Your task to perform on an android device: open a new tab in the chrome app Image 0: 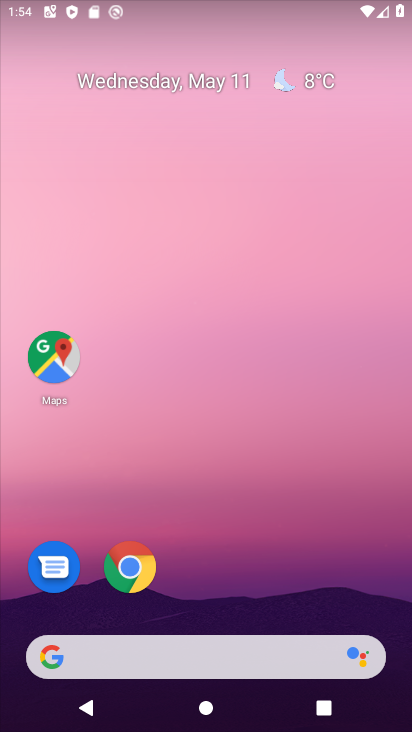
Step 0: click (143, 574)
Your task to perform on an android device: open a new tab in the chrome app Image 1: 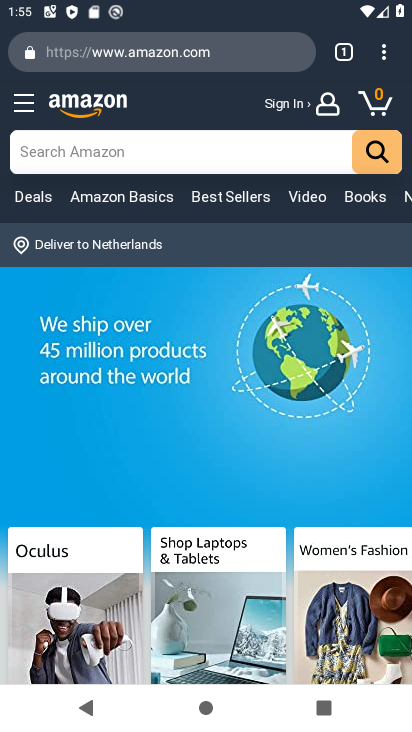
Step 1: click (386, 61)
Your task to perform on an android device: open a new tab in the chrome app Image 2: 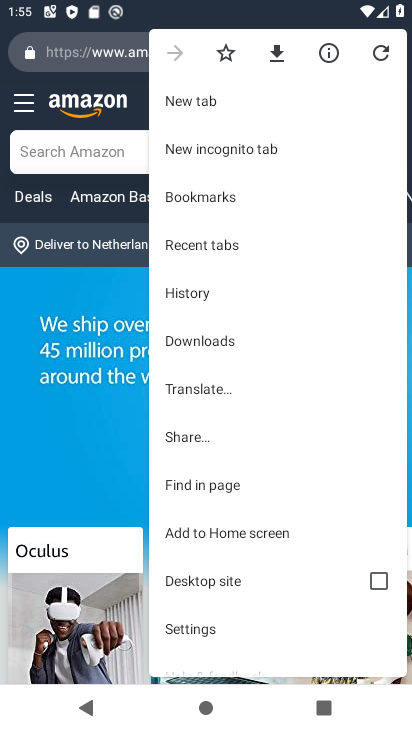
Step 2: click (259, 99)
Your task to perform on an android device: open a new tab in the chrome app Image 3: 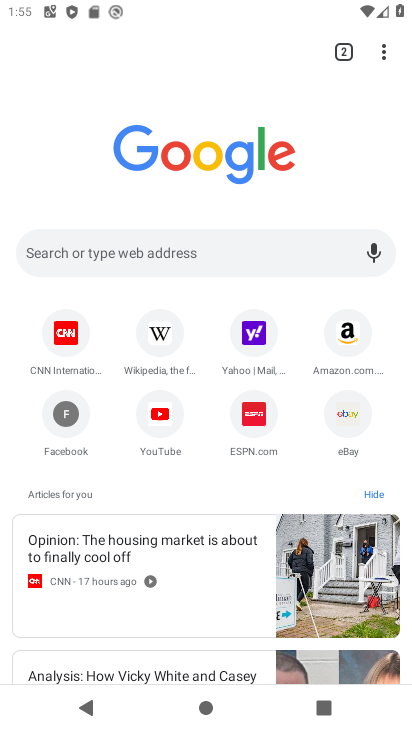
Step 3: task complete